Your task to perform on an android device: Open calendar and show me the second week of next month Image 0: 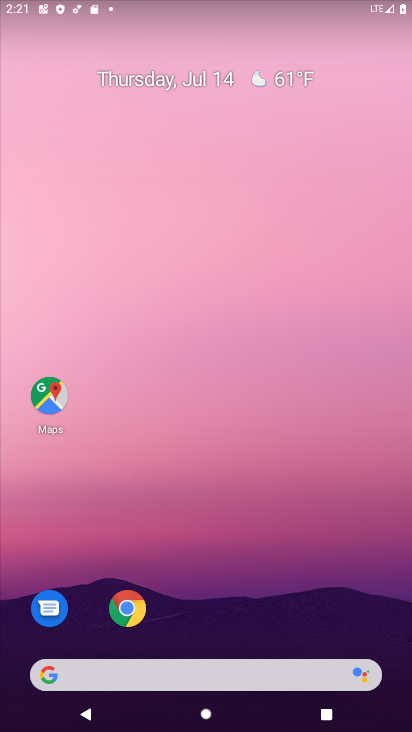
Step 0: drag from (224, 662) to (234, 278)
Your task to perform on an android device: Open calendar and show me the second week of next month Image 1: 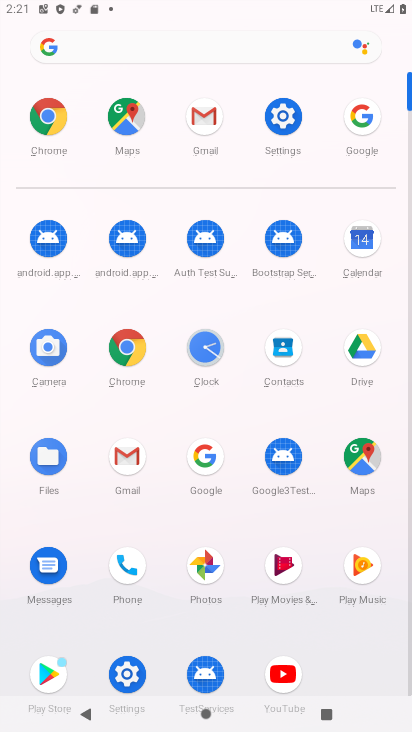
Step 1: click (367, 247)
Your task to perform on an android device: Open calendar and show me the second week of next month Image 2: 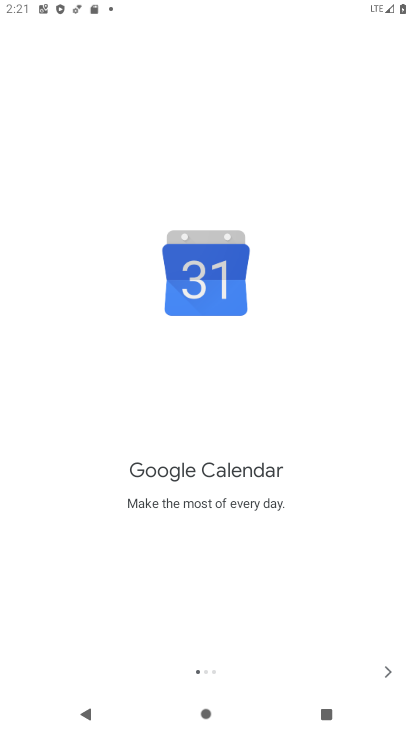
Step 2: click (387, 671)
Your task to perform on an android device: Open calendar and show me the second week of next month Image 3: 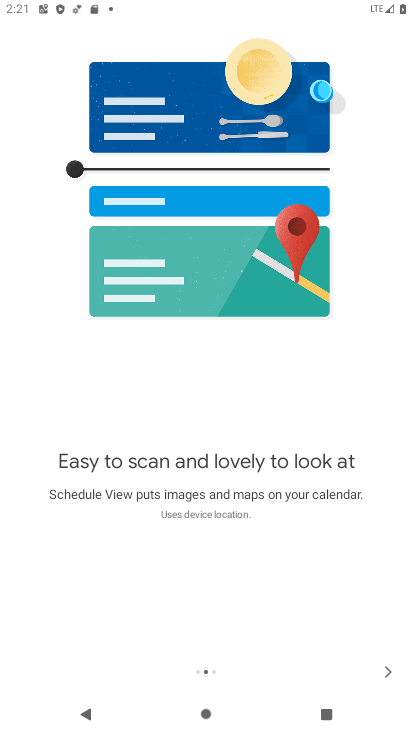
Step 3: click (387, 671)
Your task to perform on an android device: Open calendar and show me the second week of next month Image 4: 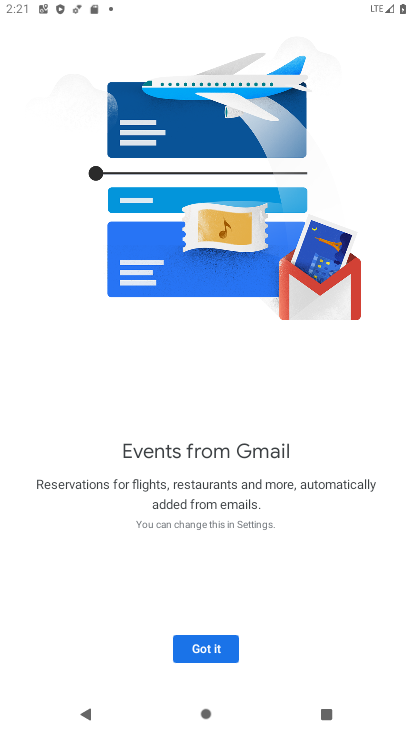
Step 4: click (219, 654)
Your task to perform on an android device: Open calendar and show me the second week of next month Image 5: 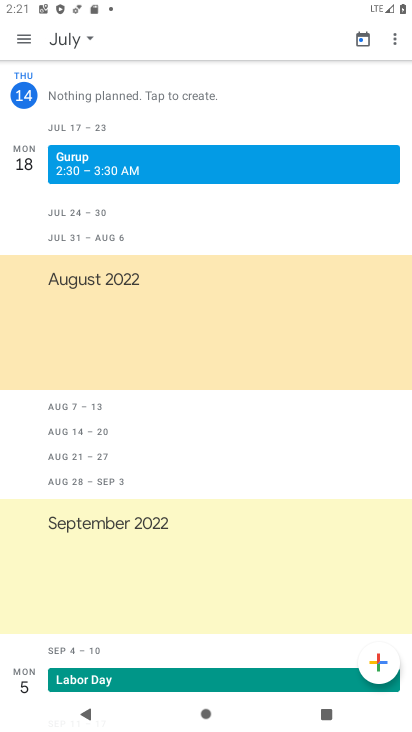
Step 5: click (73, 38)
Your task to perform on an android device: Open calendar and show me the second week of next month Image 6: 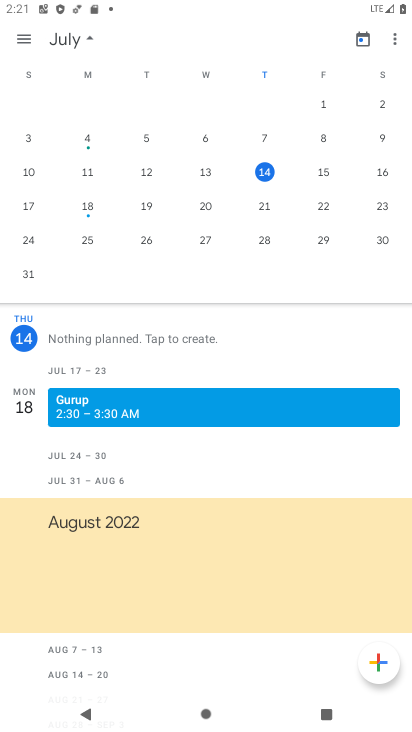
Step 6: drag from (390, 205) to (41, 179)
Your task to perform on an android device: Open calendar and show me the second week of next month Image 7: 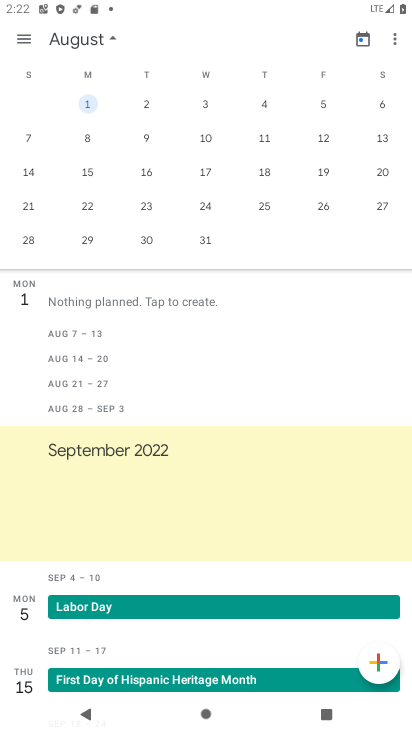
Step 7: click (31, 137)
Your task to perform on an android device: Open calendar and show me the second week of next month Image 8: 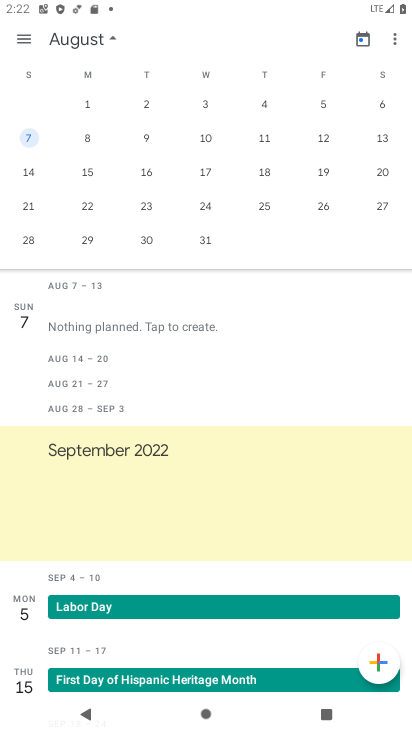
Step 8: task complete